Your task to perform on an android device: Open accessibility settings Image 0: 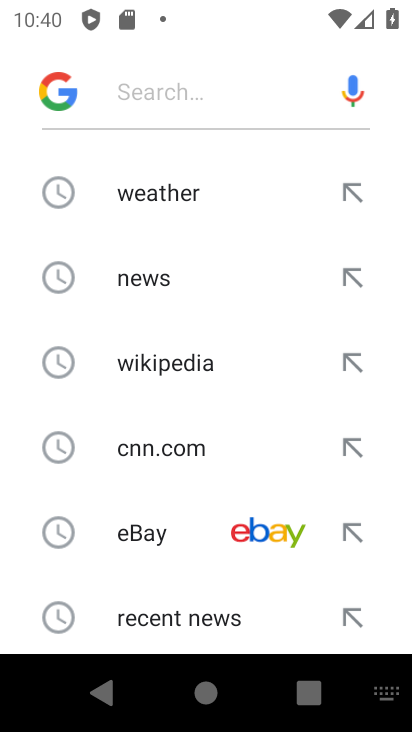
Step 0: press home button
Your task to perform on an android device: Open accessibility settings Image 1: 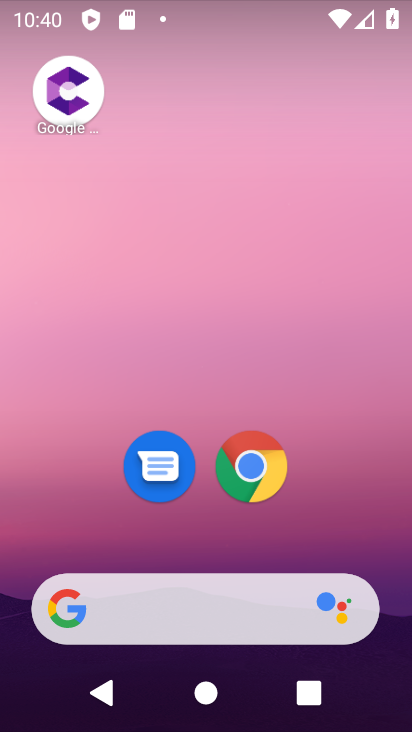
Step 1: drag from (230, 535) to (256, 74)
Your task to perform on an android device: Open accessibility settings Image 2: 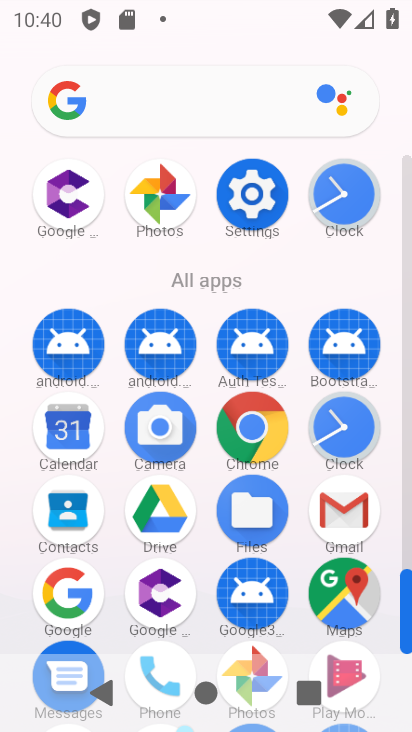
Step 2: click (244, 189)
Your task to perform on an android device: Open accessibility settings Image 3: 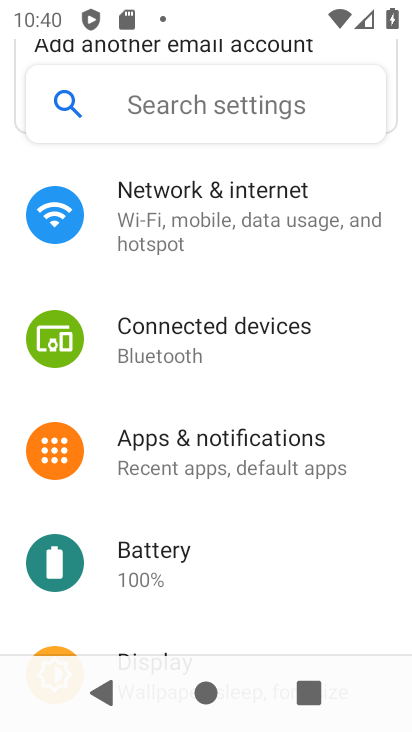
Step 3: drag from (186, 603) to (224, 122)
Your task to perform on an android device: Open accessibility settings Image 4: 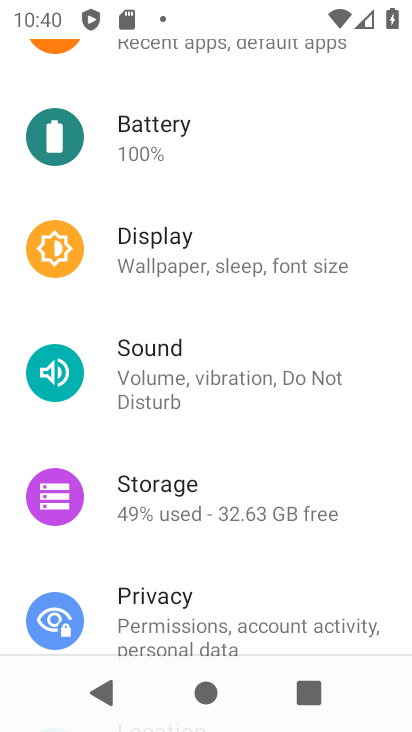
Step 4: drag from (191, 585) to (230, 83)
Your task to perform on an android device: Open accessibility settings Image 5: 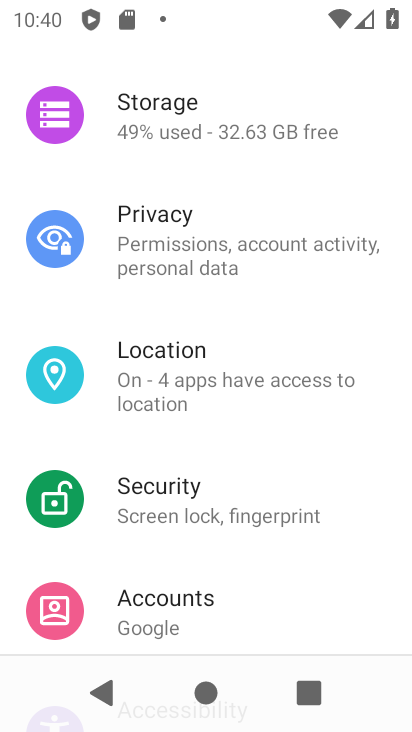
Step 5: drag from (167, 553) to (220, 86)
Your task to perform on an android device: Open accessibility settings Image 6: 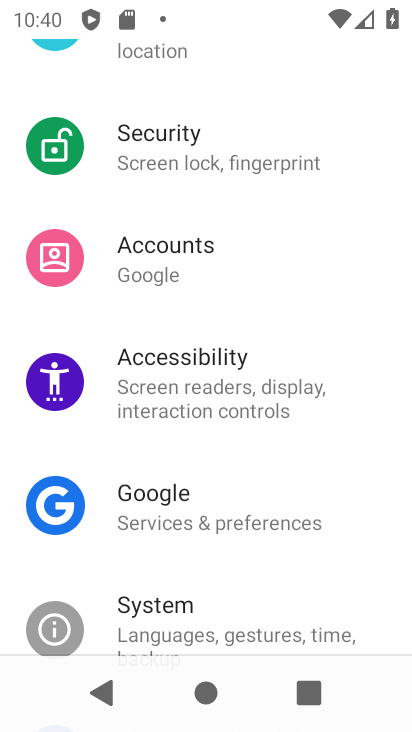
Step 6: click (180, 385)
Your task to perform on an android device: Open accessibility settings Image 7: 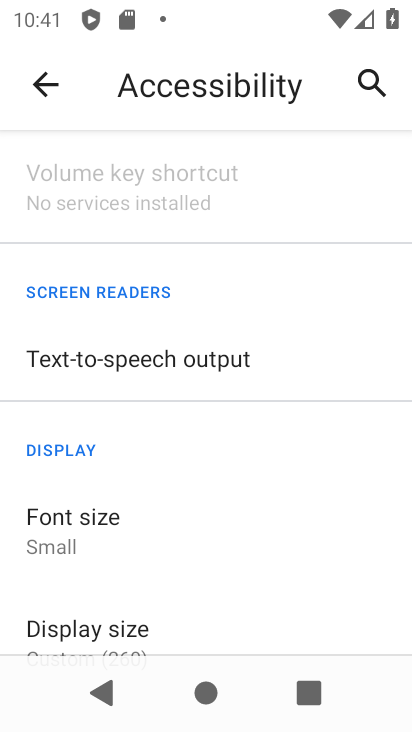
Step 7: task complete